Your task to perform on an android device: snooze an email in the gmail app Image 0: 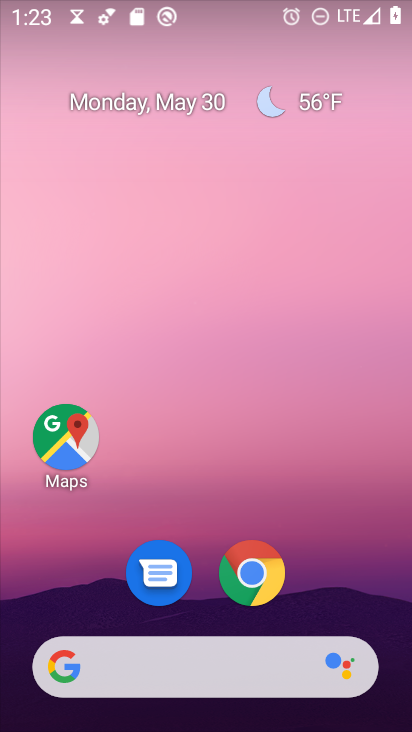
Step 0: drag from (237, 648) to (382, 14)
Your task to perform on an android device: snooze an email in the gmail app Image 1: 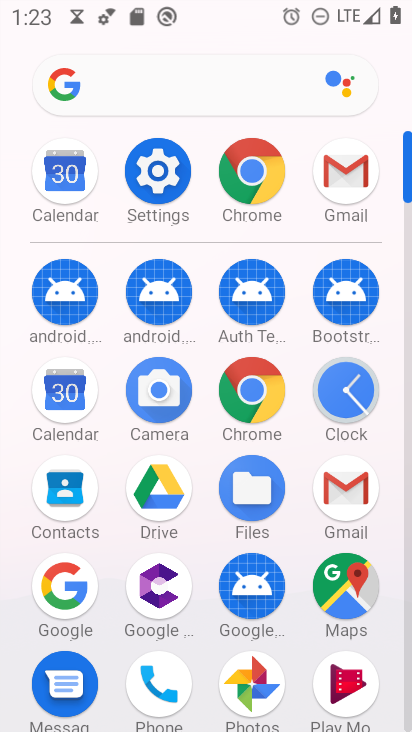
Step 1: click (347, 484)
Your task to perform on an android device: snooze an email in the gmail app Image 2: 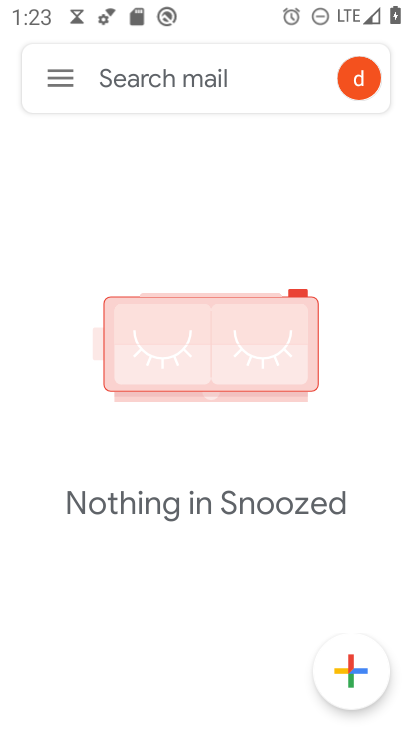
Step 2: task complete